Your task to perform on an android device: check the backup settings in the google photos Image 0: 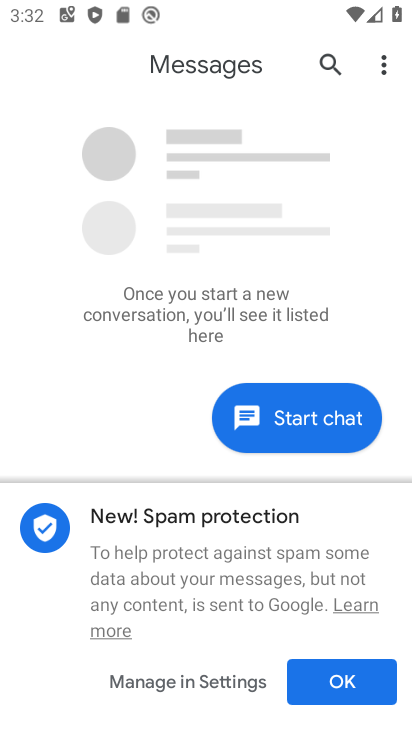
Step 0: press back button
Your task to perform on an android device: check the backup settings in the google photos Image 1: 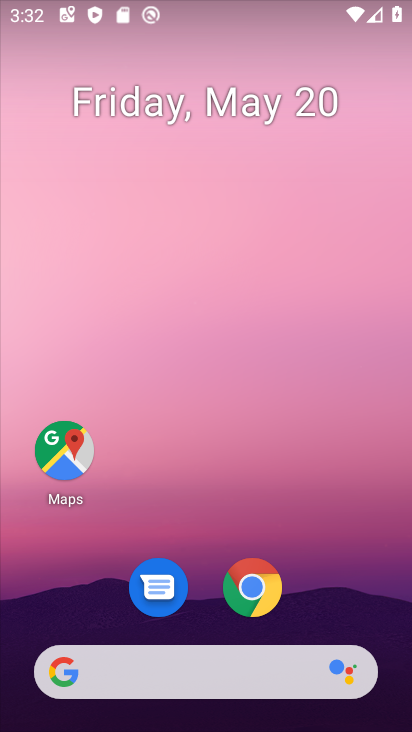
Step 1: drag from (334, 580) to (239, 47)
Your task to perform on an android device: check the backup settings in the google photos Image 2: 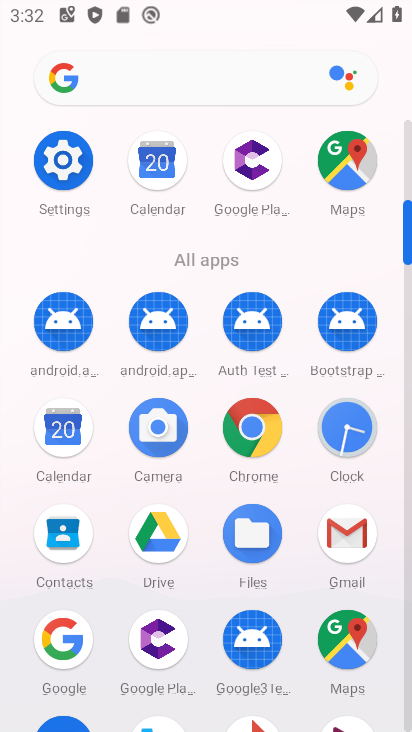
Step 2: drag from (20, 602) to (24, 251)
Your task to perform on an android device: check the backup settings in the google photos Image 3: 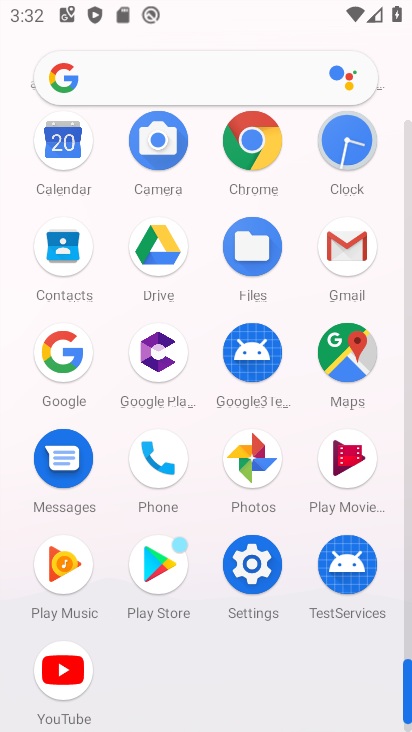
Step 3: click (251, 455)
Your task to perform on an android device: check the backup settings in the google photos Image 4: 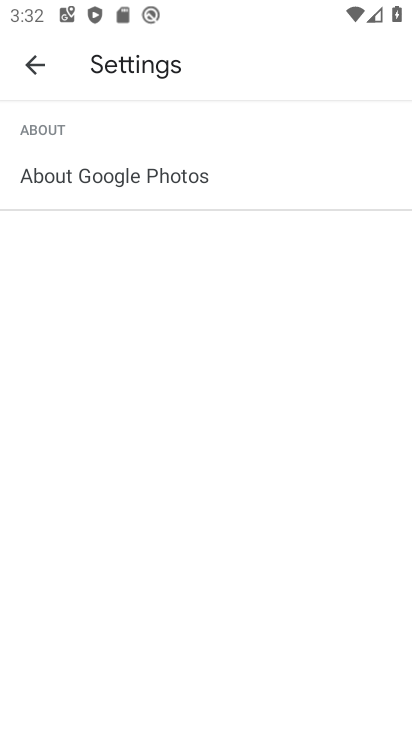
Step 4: click (38, 71)
Your task to perform on an android device: check the backup settings in the google photos Image 5: 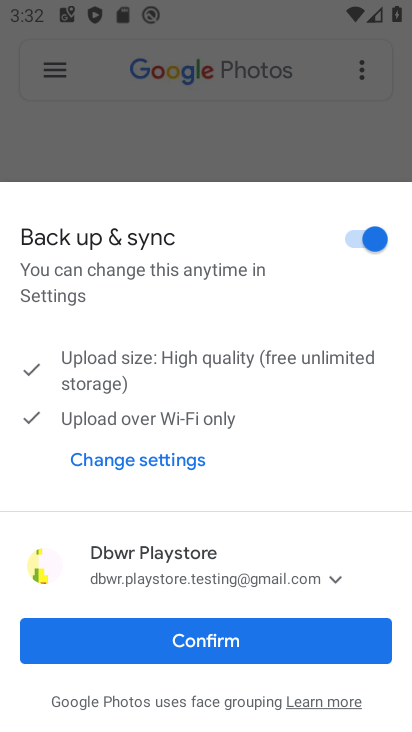
Step 5: click (190, 633)
Your task to perform on an android device: check the backup settings in the google photos Image 6: 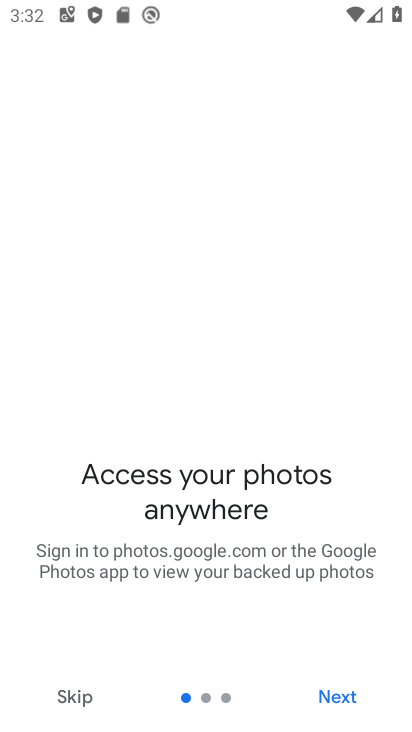
Step 6: click (348, 701)
Your task to perform on an android device: check the backup settings in the google photos Image 7: 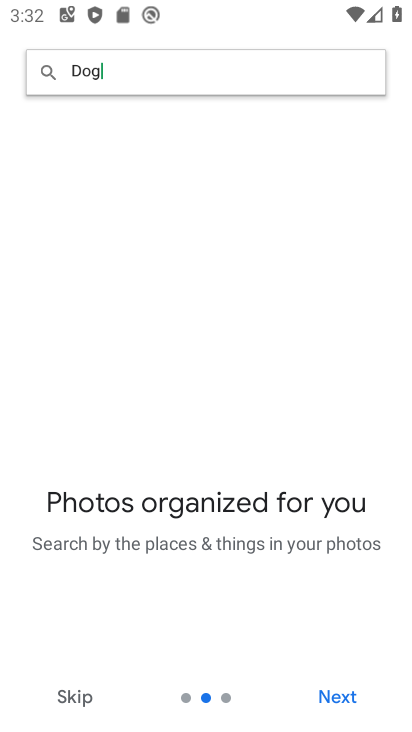
Step 7: click (342, 694)
Your task to perform on an android device: check the backup settings in the google photos Image 8: 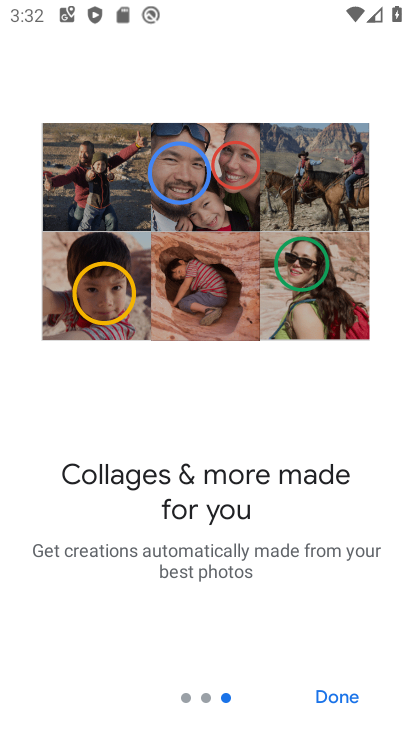
Step 8: click (342, 694)
Your task to perform on an android device: check the backup settings in the google photos Image 9: 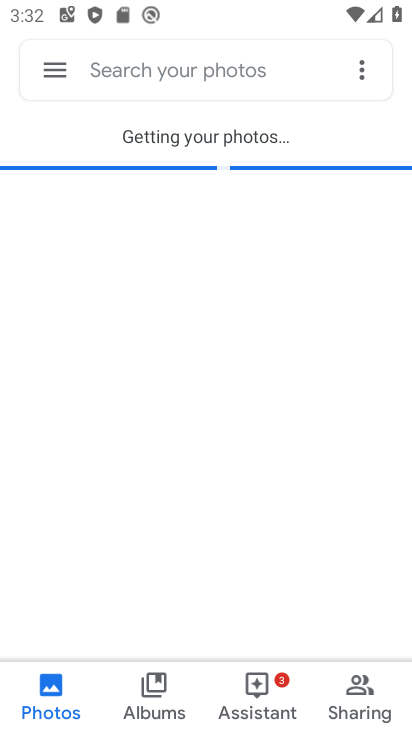
Step 9: click (56, 63)
Your task to perform on an android device: check the backup settings in the google photos Image 10: 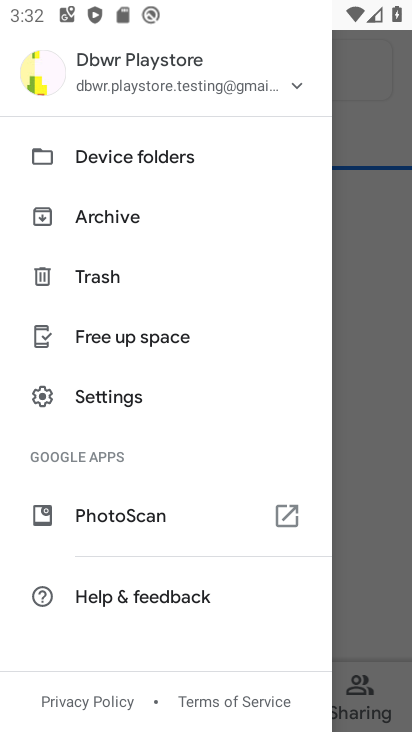
Step 10: click (113, 390)
Your task to perform on an android device: check the backup settings in the google photos Image 11: 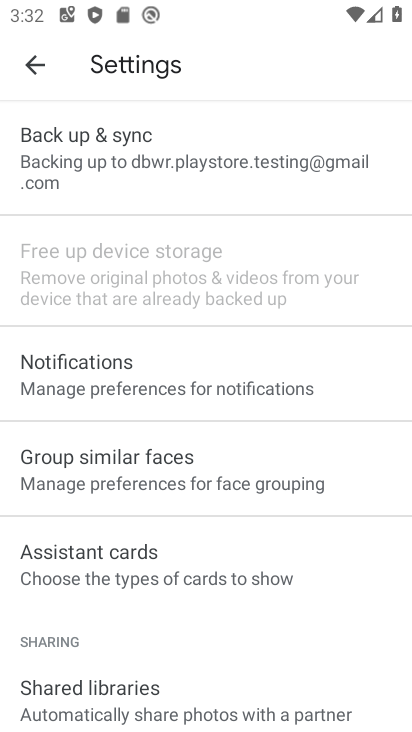
Step 11: click (168, 160)
Your task to perform on an android device: check the backup settings in the google photos Image 12: 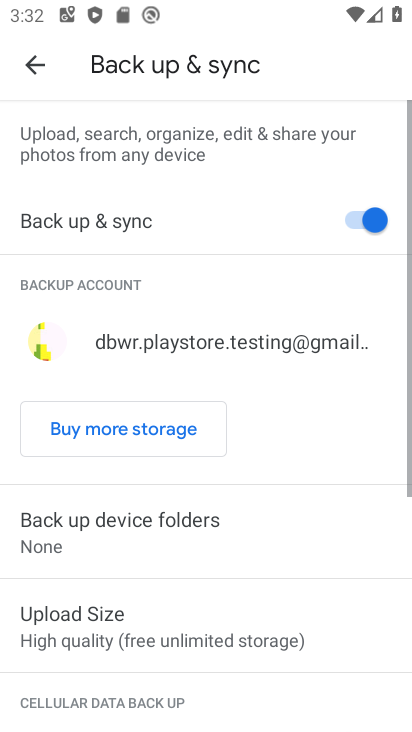
Step 12: task complete